Your task to perform on an android device: change notifications settings Image 0: 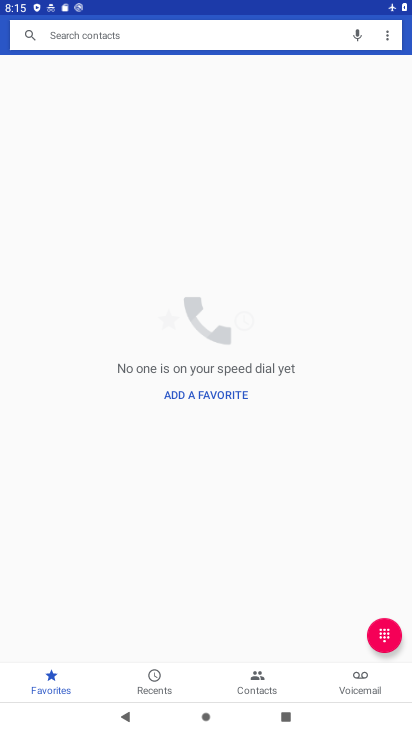
Step 0: press back button
Your task to perform on an android device: change notifications settings Image 1: 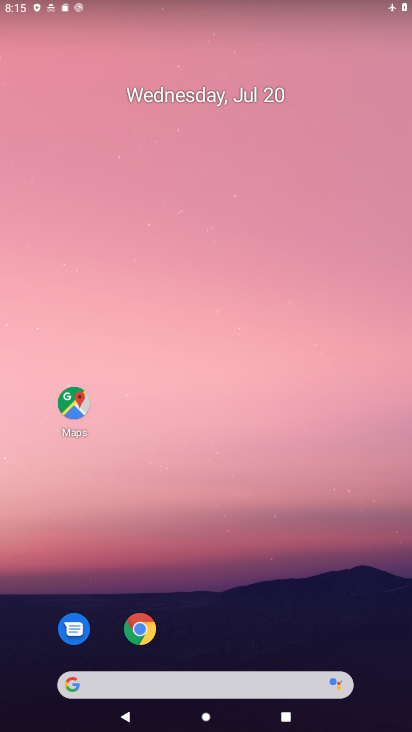
Step 1: drag from (259, 714) to (191, 111)
Your task to perform on an android device: change notifications settings Image 2: 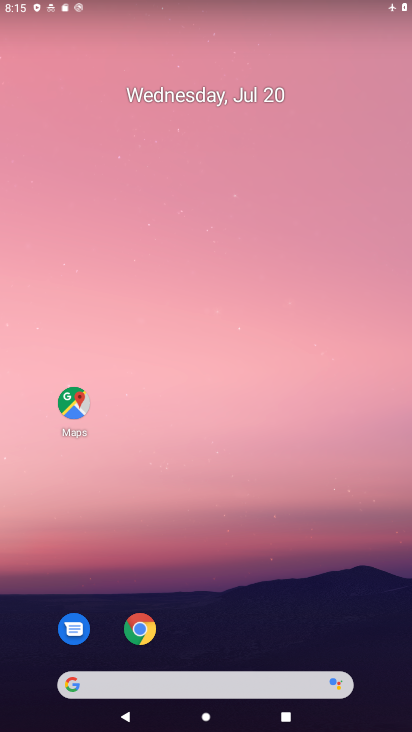
Step 2: drag from (256, 660) to (219, 301)
Your task to perform on an android device: change notifications settings Image 3: 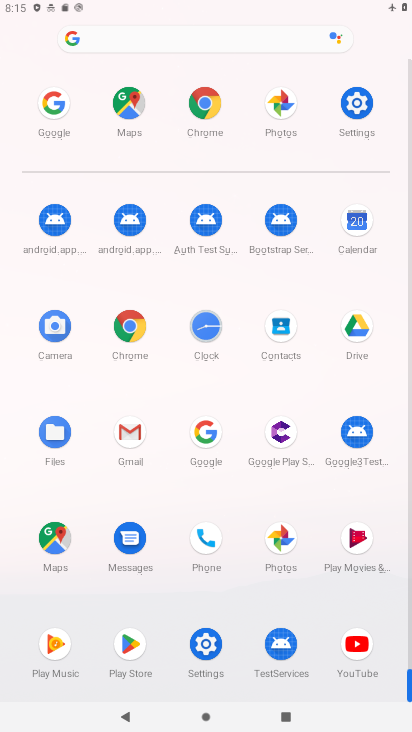
Step 3: click (348, 107)
Your task to perform on an android device: change notifications settings Image 4: 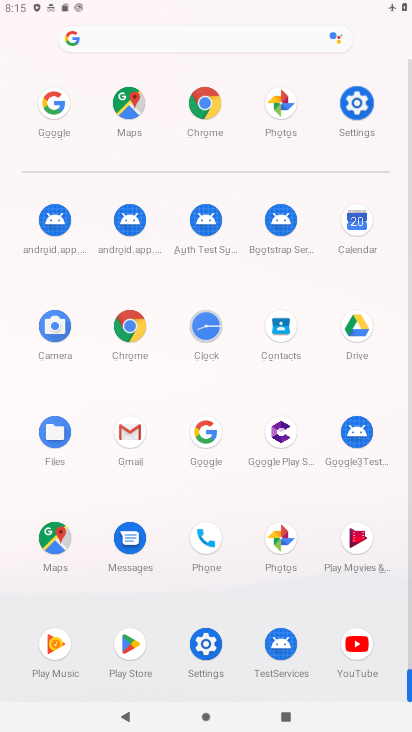
Step 4: click (350, 104)
Your task to perform on an android device: change notifications settings Image 5: 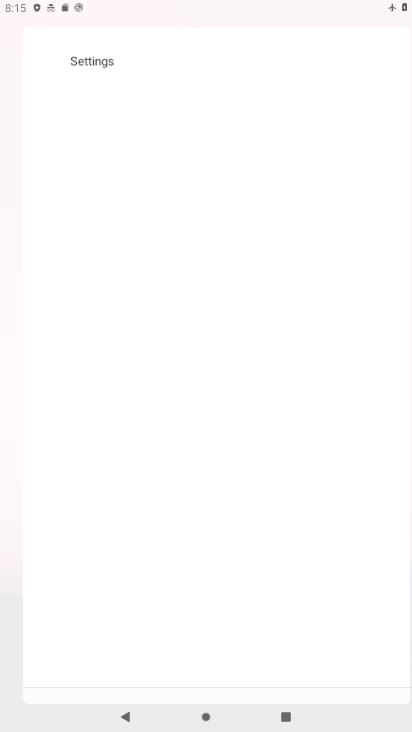
Step 5: click (351, 103)
Your task to perform on an android device: change notifications settings Image 6: 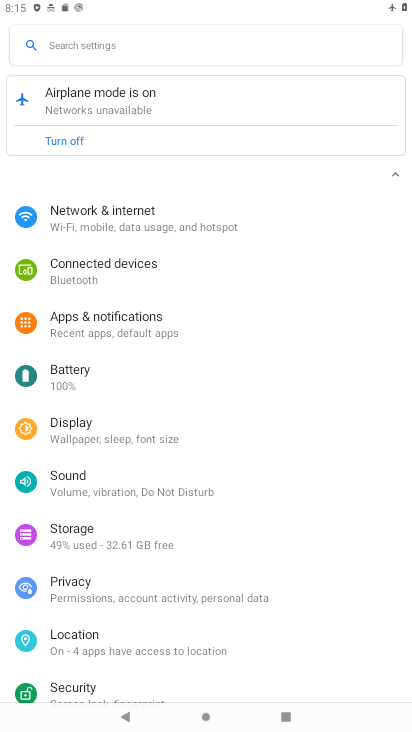
Step 6: click (120, 315)
Your task to perform on an android device: change notifications settings Image 7: 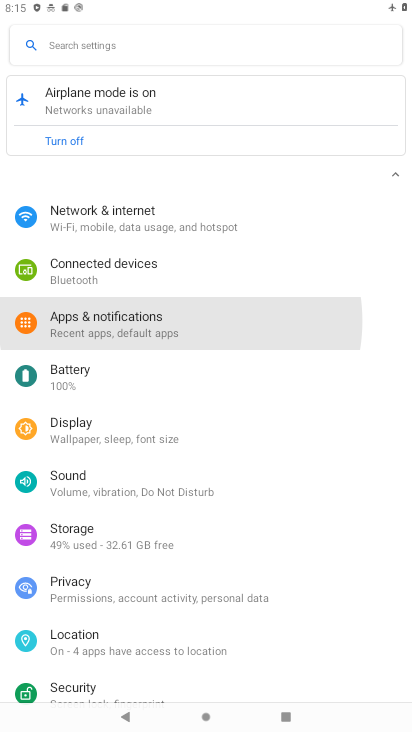
Step 7: click (123, 320)
Your task to perform on an android device: change notifications settings Image 8: 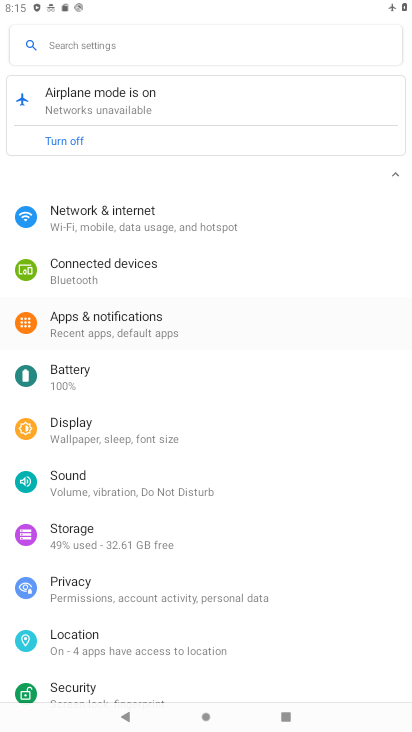
Step 8: click (124, 320)
Your task to perform on an android device: change notifications settings Image 9: 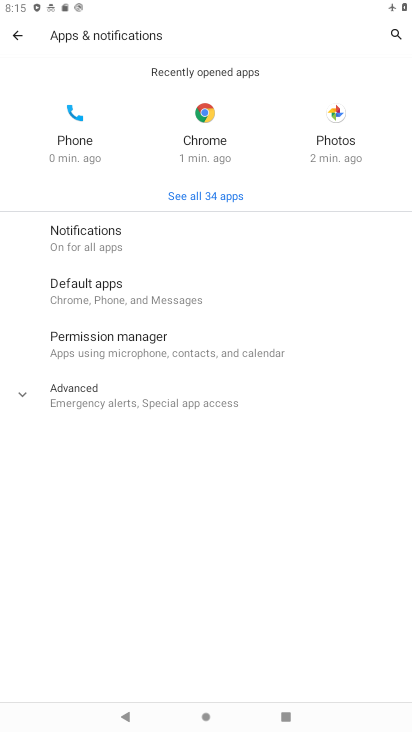
Step 9: click (127, 316)
Your task to perform on an android device: change notifications settings Image 10: 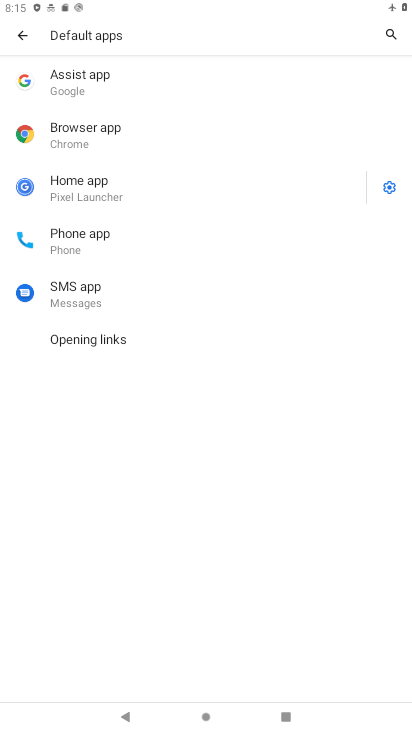
Step 10: click (18, 39)
Your task to perform on an android device: change notifications settings Image 11: 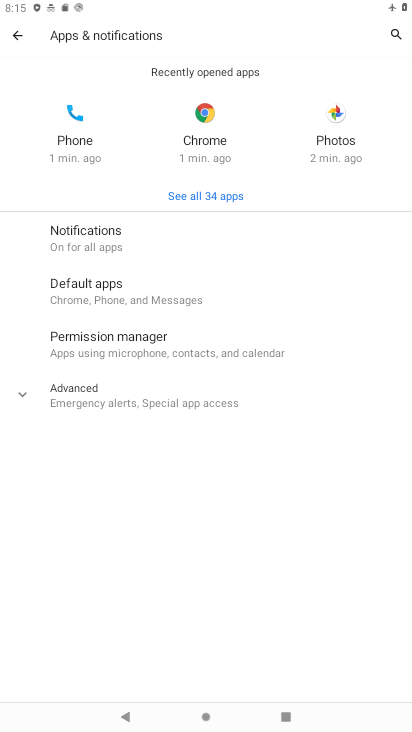
Step 11: click (87, 230)
Your task to perform on an android device: change notifications settings Image 12: 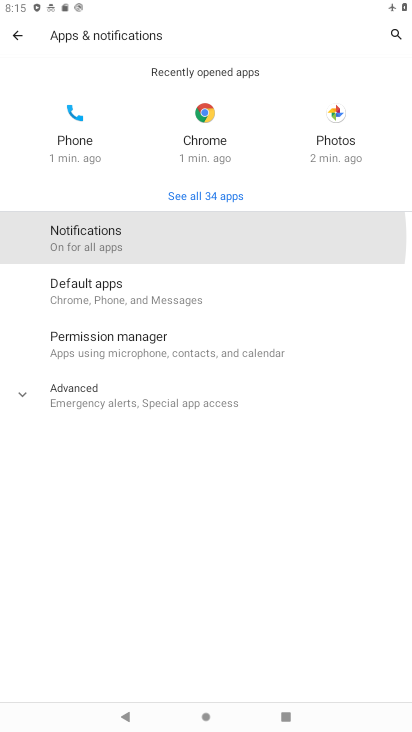
Step 12: click (86, 231)
Your task to perform on an android device: change notifications settings Image 13: 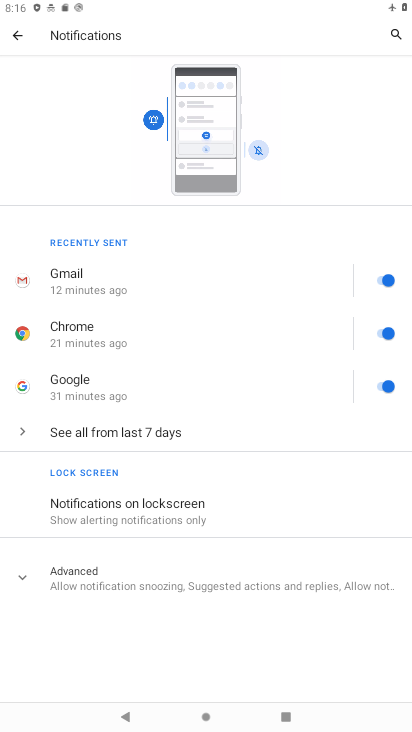
Step 13: click (384, 272)
Your task to perform on an android device: change notifications settings Image 14: 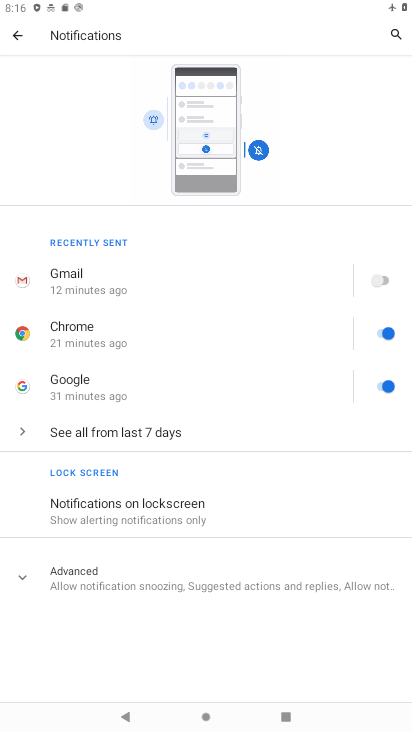
Step 14: click (387, 334)
Your task to perform on an android device: change notifications settings Image 15: 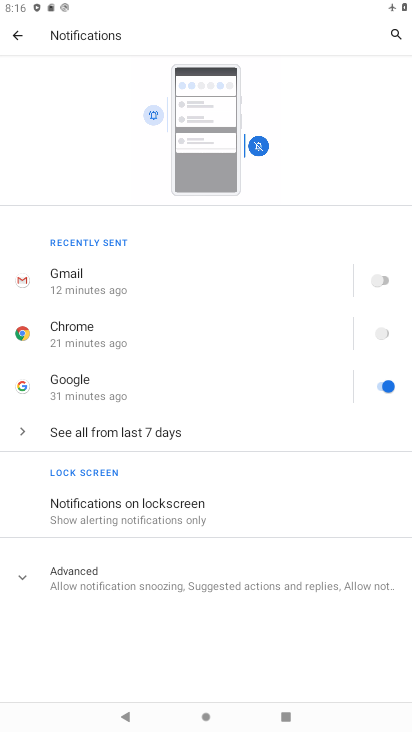
Step 15: click (387, 384)
Your task to perform on an android device: change notifications settings Image 16: 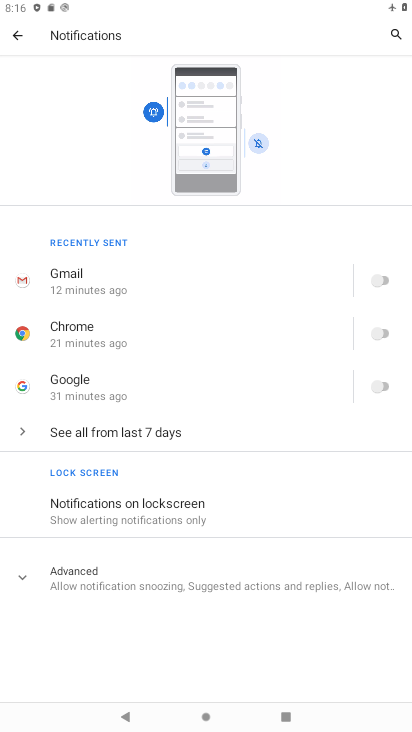
Step 16: task complete